Your task to perform on an android device: open the mobile data screen to see how much data has been used Image 0: 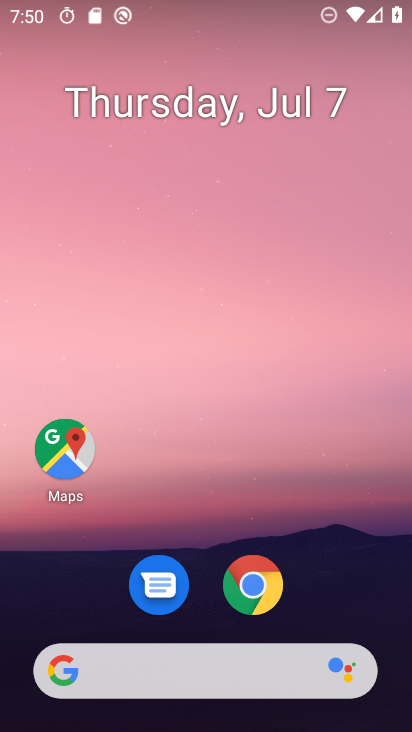
Step 0: drag from (174, 688) to (379, 171)
Your task to perform on an android device: open the mobile data screen to see how much data has been used Image 1: 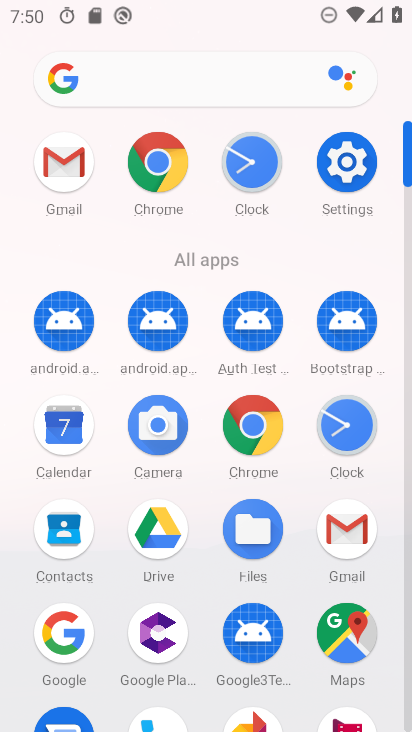
Step 1: click (352, 173)
Your task to perform on an android device: open the mobile data screen to see how much data has been used Image 2: 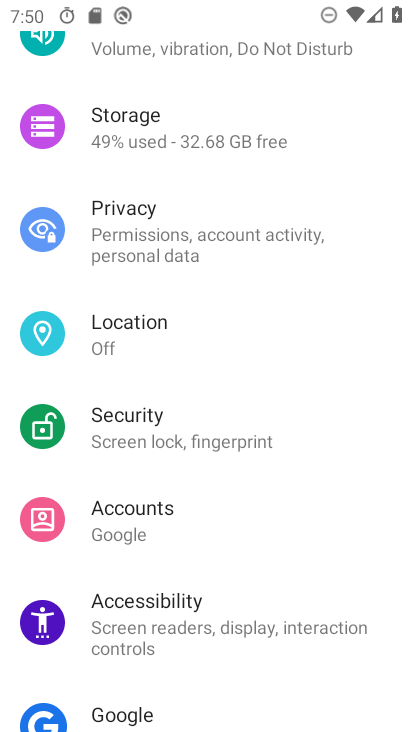
Step 2: drag from (298, 166) to (228, 623)
Your task to perform on an android device: open the mobile data screen to see how much data has been used Image 3: 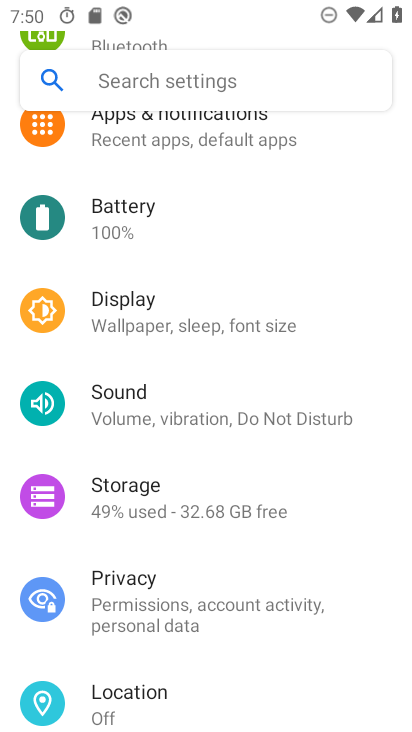
Step 3: drag from (274, 207) to (229, 583)
Your task to perform on an android device: open the mobile data screen to see how much data has been used Image 4: 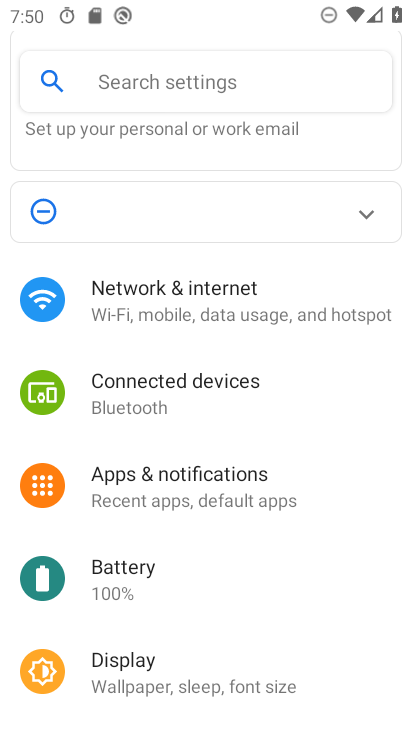
Step 4: click (221, 308)
Your task to perform on an android device: open the mobile data screen to see how much data has been used Image 5: 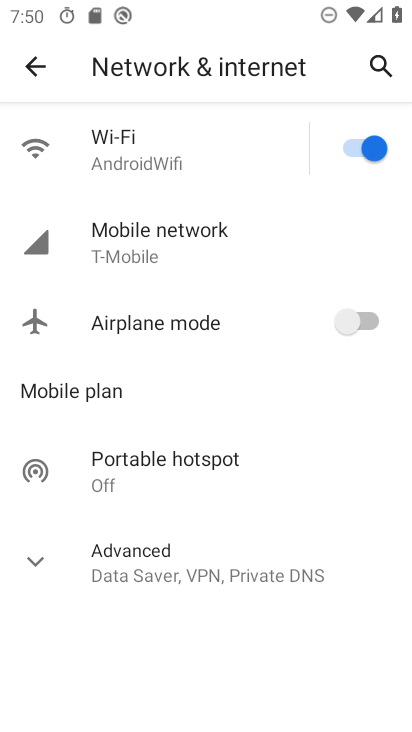
Step 5: click (192, 232)
Your task to perform on an android device: open the mobile data screen to see how much data has been used Image 6: 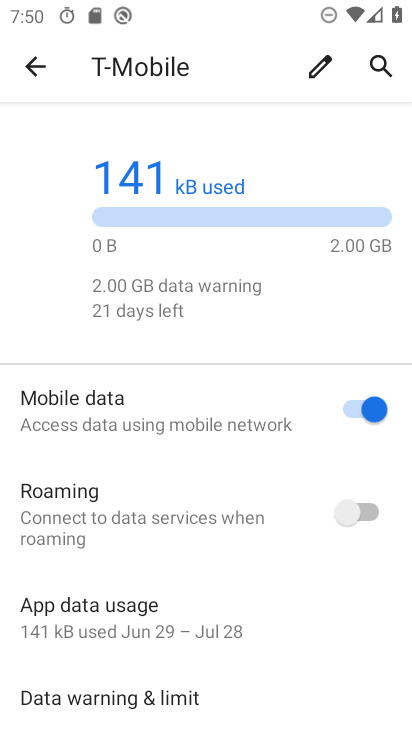
Step 6: task complete